Your task to perform on an android device: What is the recent news? Image 0: 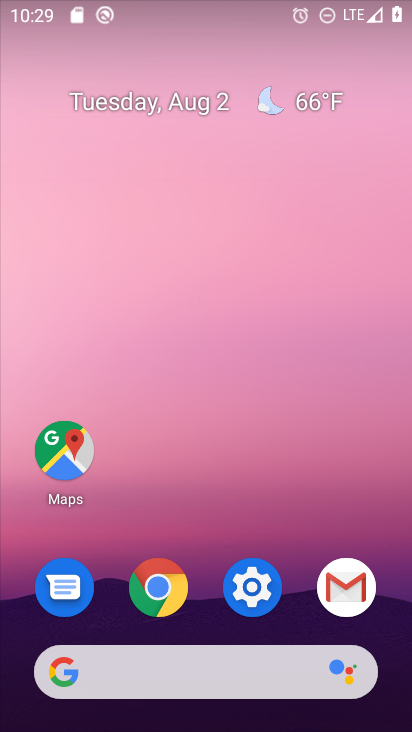
Step 0: press home button
Your task to perform on an android device: What is the recent news? Image 1: 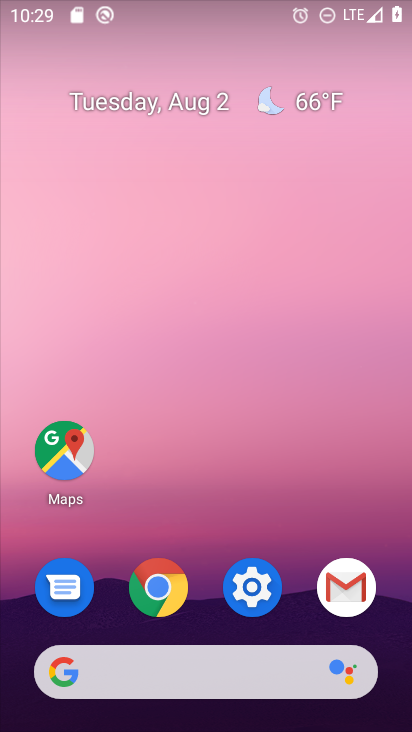
Step 1: click (188, 665)
Your task to perform on an android device: What is the recent news? Image 2: 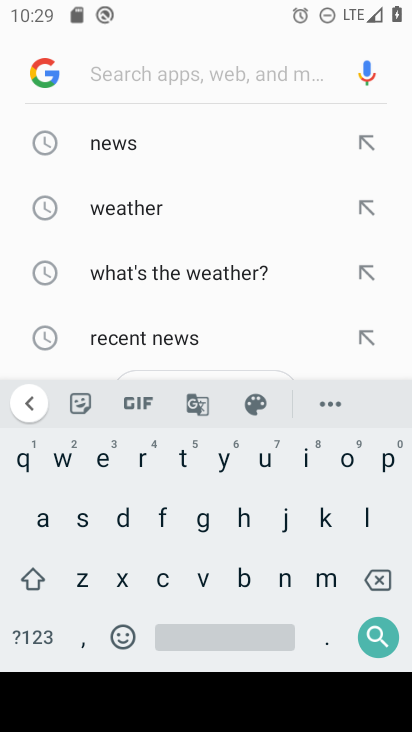
Step 2: click (147, 334)
Your task to perform on an android device: What is the recent news? Image 3: 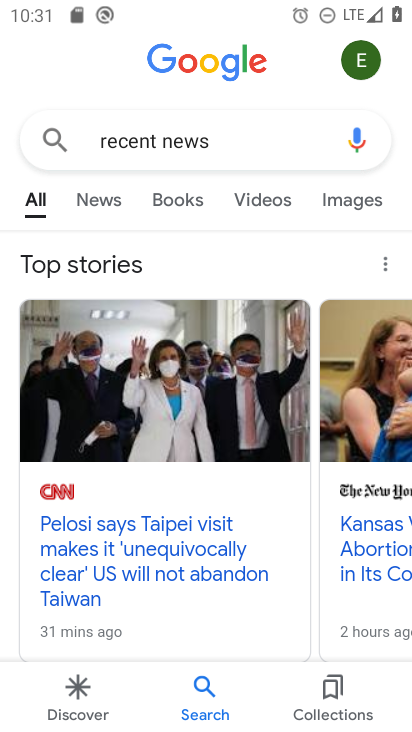
Step 3: task complete